Your task to perform on an android device: Go to sound settings Image 0: 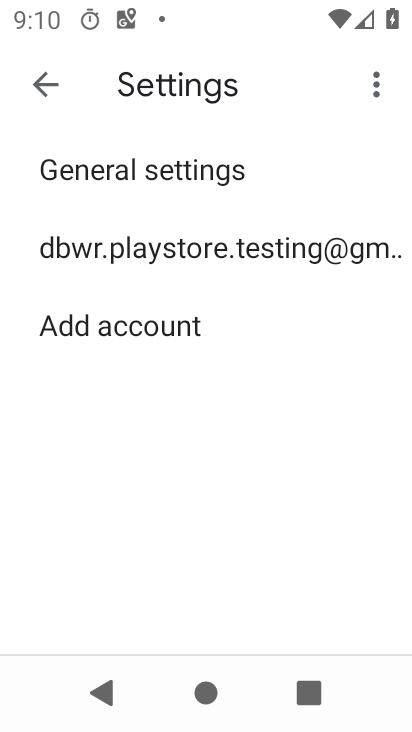
Step 0: press home button
Your task to perform on an android device: Go to sound settings Image 1: 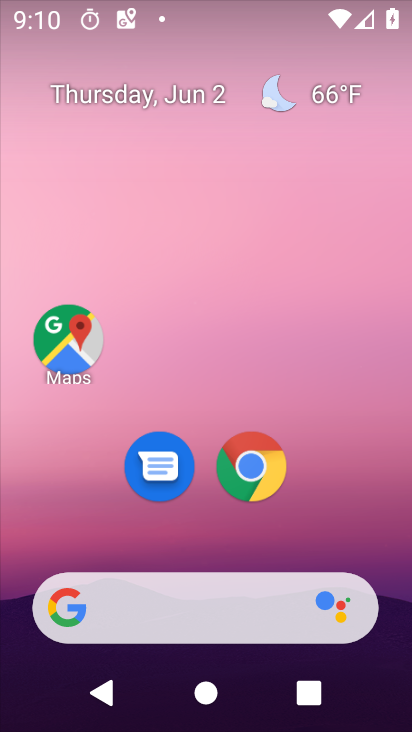
Step 1: drag from (49, 500) to (247, 155)
Your task to perform on an android device: Go to sound settings Image 2: 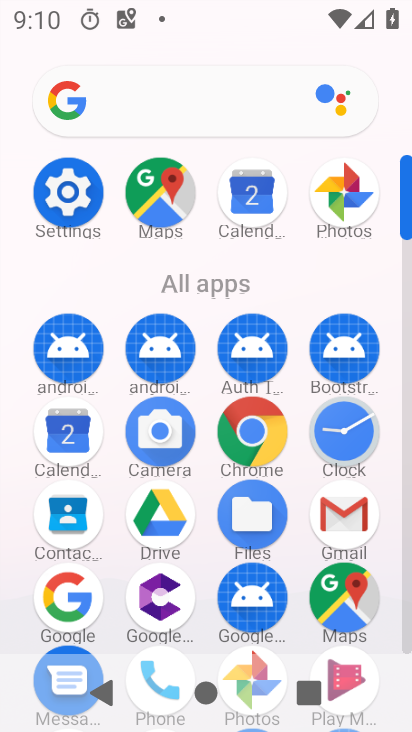
Step 2: click (55, 192)
Your task to perform on an android device: Go to sound settings Image 3: 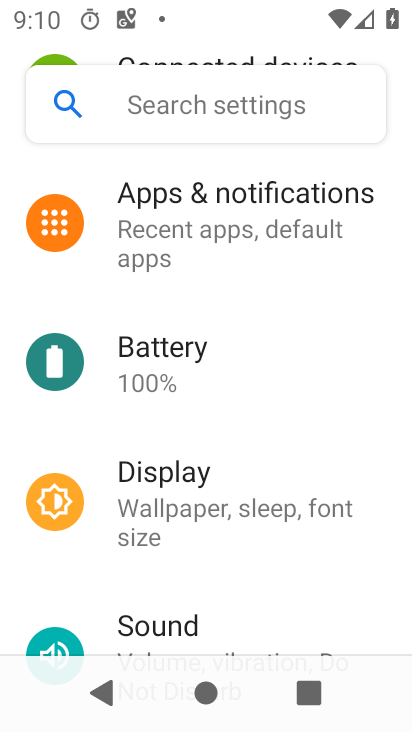
Step 3: click (159, 633)
Your task to perform on an android device: Go to sound settings Image 4: 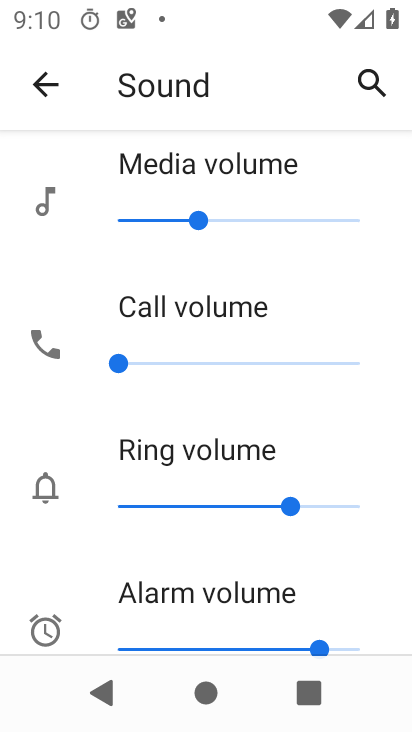
Step 4: task complete